Your task to perform on an android device: turn notification dots on Image 0: 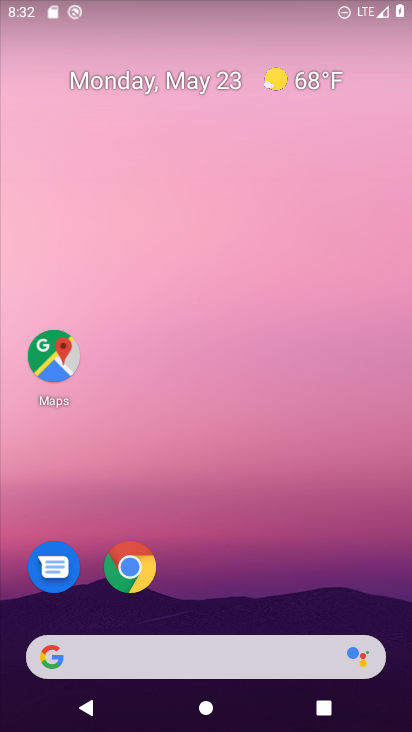
Step 0: click (292, 169)
Your task to perform on an android device: turn notification dots on Image 1: 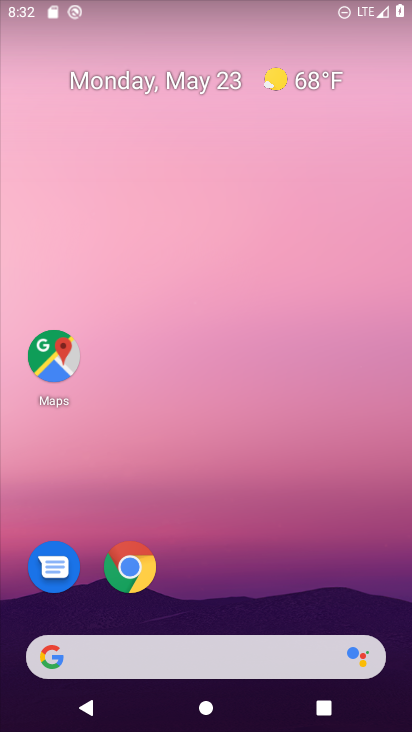
Step 1: drag from (215, 591) to (253, 110)
Your task to perform on an android device: turn notification dots on Image 2: 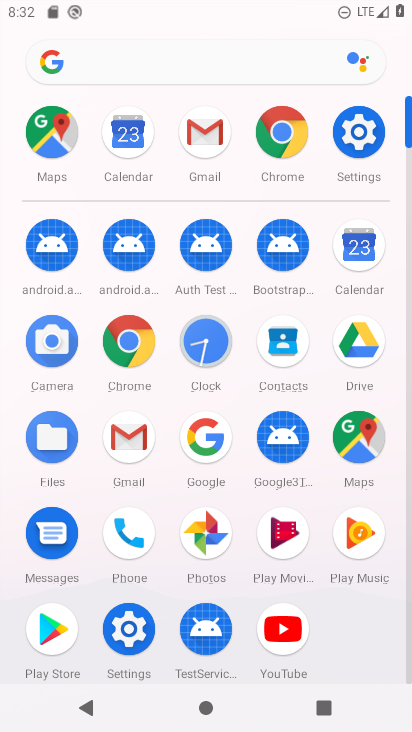
Step 2: click (350, 135)
Your task to perform on an android device: turn notification dots on Image 3: 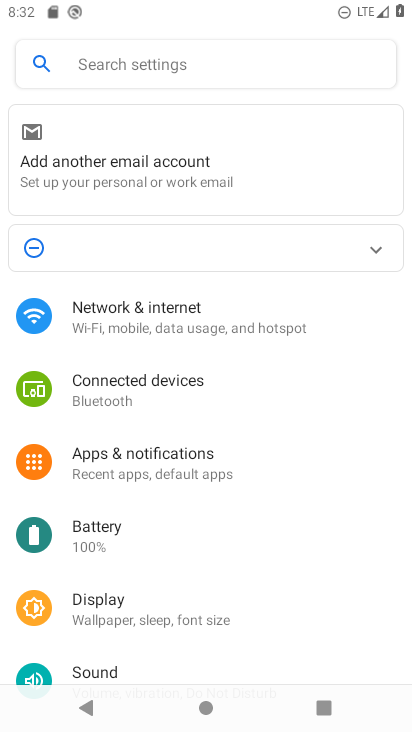
Step 3: click (204, 449)
Your task to perform on an android device: turn notification dots on Image 4: 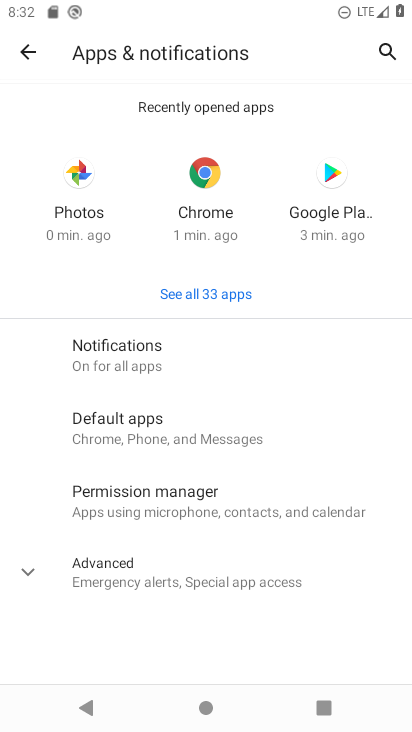
Step 4: click (144, 567)
Your task to perform on an android device: turn notification dots on Image 5: 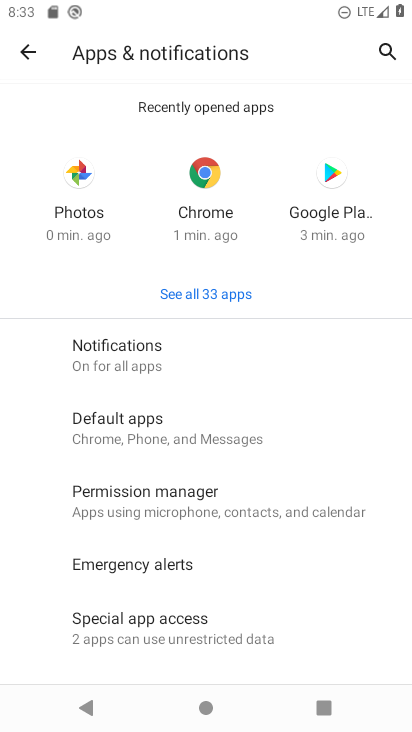
Step 5: click (177, 342)
Your task to perform on an android device: turn notification dots on Image 6: 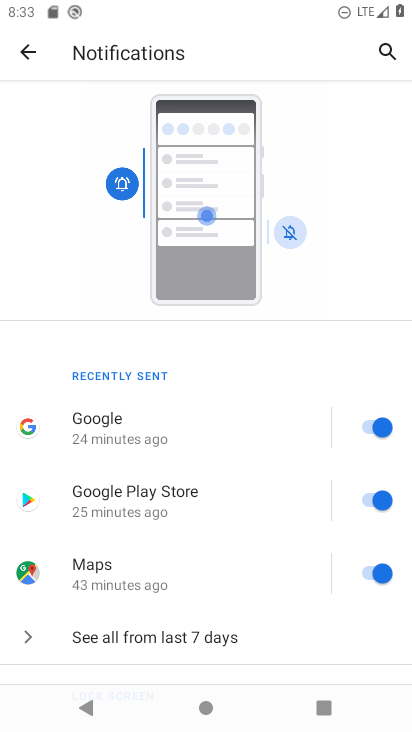
Step 6: drag from (206, 601) to (329, 78)
Your task to perform on an android device: turn notification dots on Image 7: 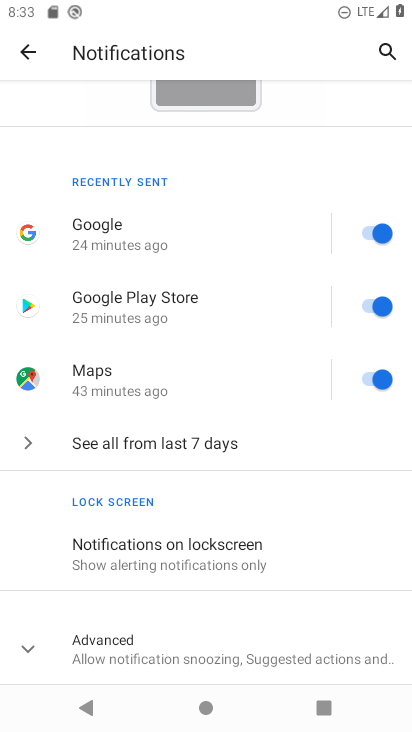
Step 7: click (130, 640)
Your task to perform on an android device: turn notification dots on Image 8: 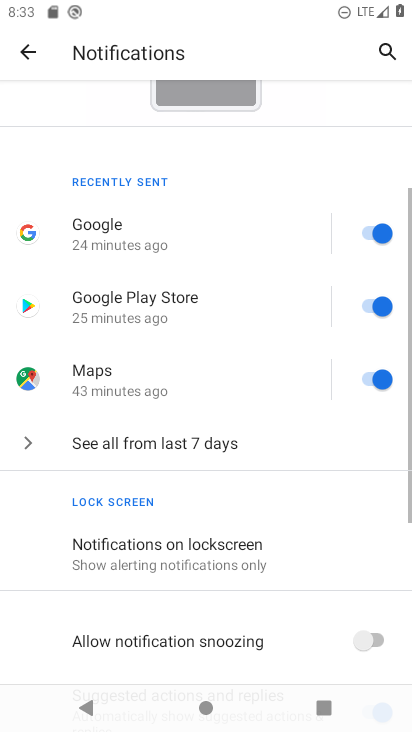
Step 8: drag from (136, 628) to (319, 118)
Your task to perform on an android device: turn notification dots on Image 9: 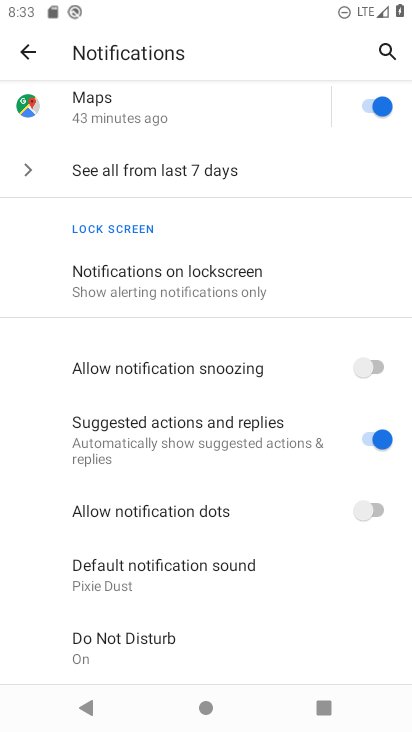
Step 9: click (356, 490)
Your task to perform on an android device: turn notification dots on Image 10: 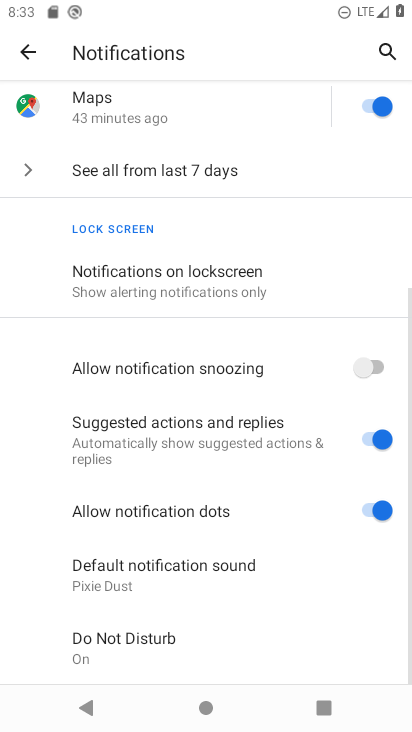
Step 10: task complete